Your task to perform on an android device: Open Reddit.com Image 0: 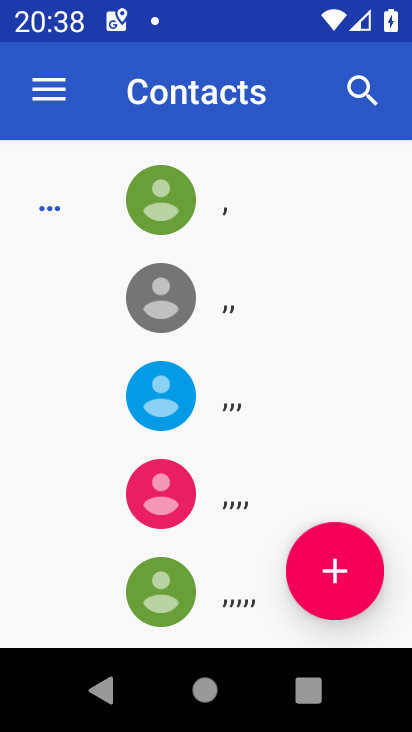
Step 0: press home button
Your task to perform on an android device: Open Reddit.com Image 1: 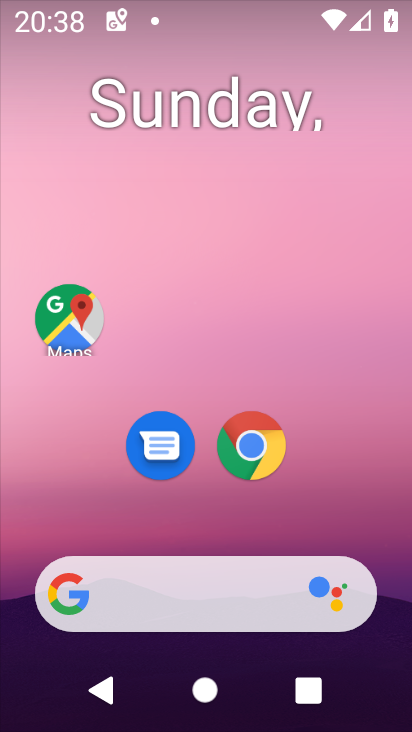
Step 1: drag from (27, 561) to (232, 196)
Your task to perform on an android device: Open Reddit.com Image 2: 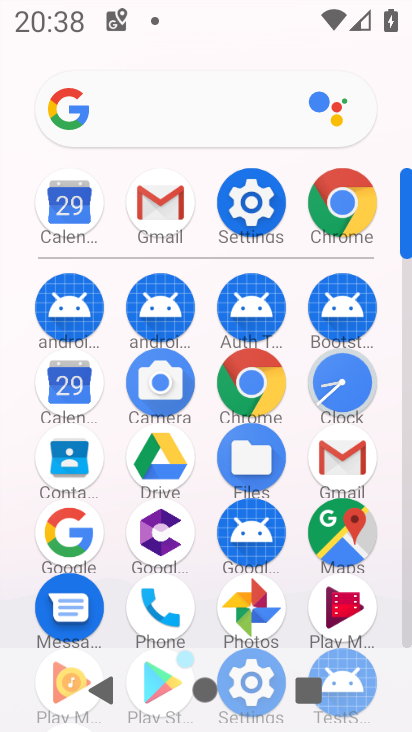
Step 2: type "Reddit.com"
Your task to perform on an android device: Open Reddit.com Image 3: 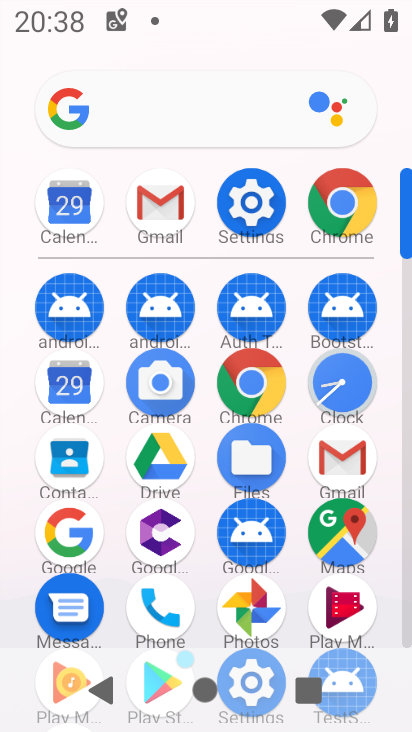
Step 3: click (364, 210)
Your task to perform on an android device: Open Reddit.com Image 4: 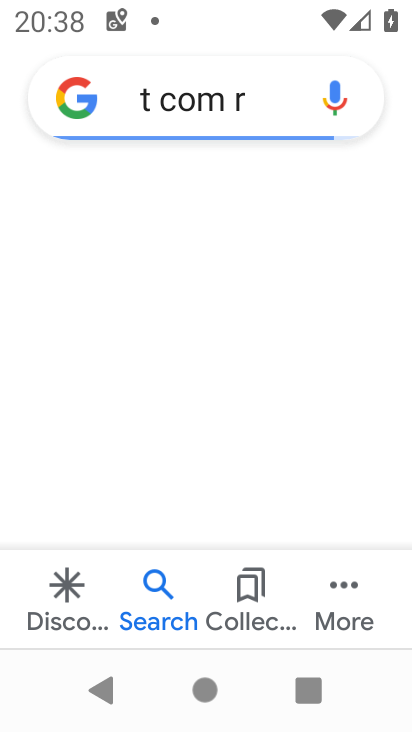
Step 4: click (168, 108)
Your task to perform on an android device: Open Reddit.com Image 5: 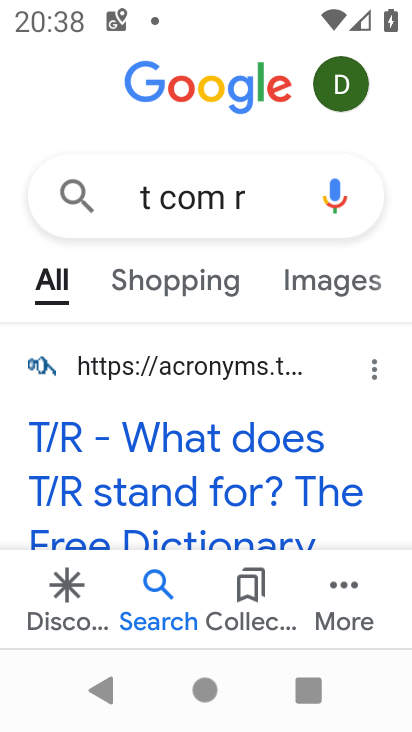
Step 5: click (272, 189)
Your task to perform on an android device: Open Reddit.com Image 6: 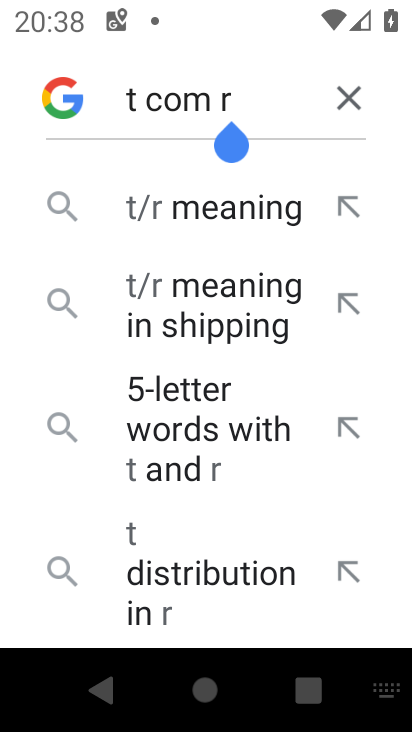
Step 6: click (339, 97)
Your task to perform on an android device: Open Reddit.com Image 7: 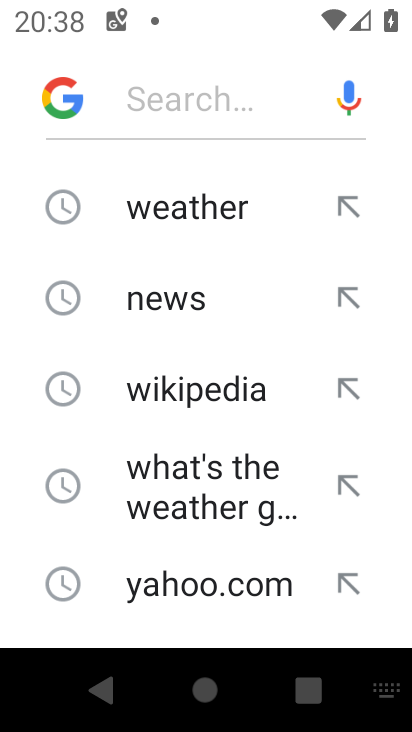
Step 7: type "Reddit.com"
Your task to perform on an android device: Open Reddit.com Image 8: 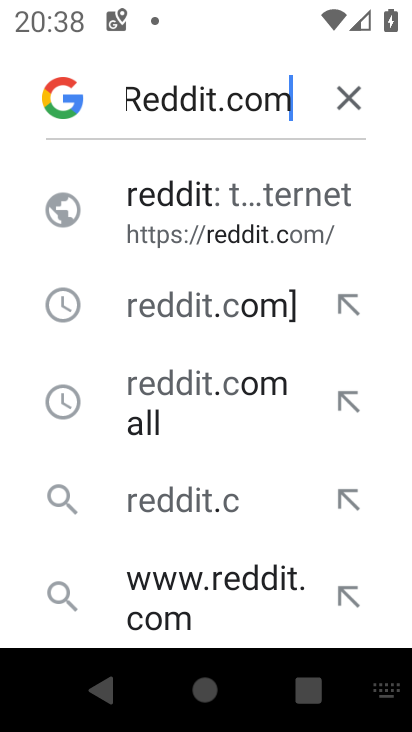
Step 8: type ""
Your task to perform on an android device: Open Reddit.com Image 9: 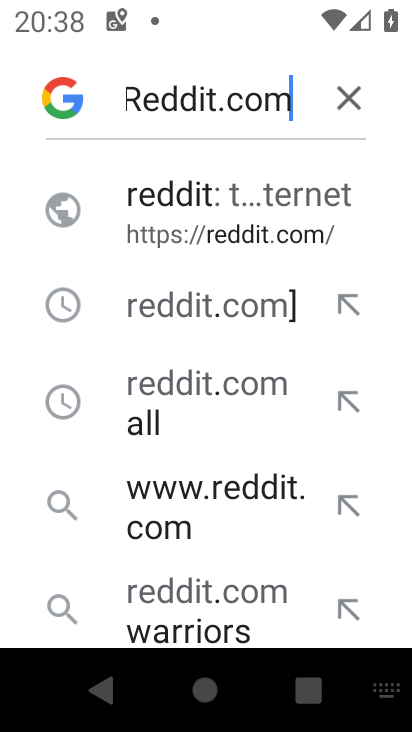
Step 9: click (141, 182)
Your task to perform on an android device: Open Reddit.com Image 10: 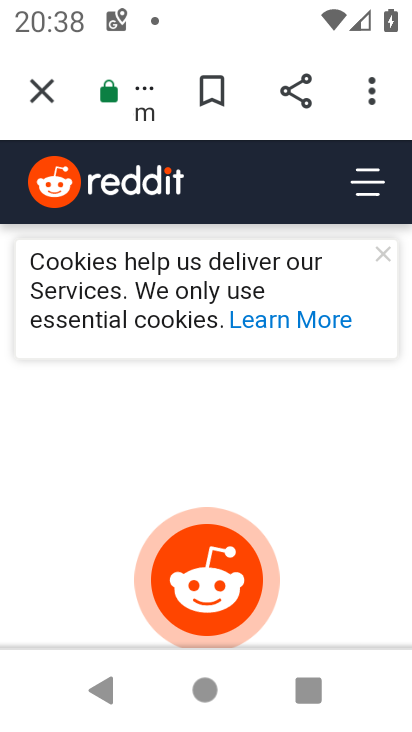
Step 10: task complete